Your task to perform on an android device: change the clock style Image 0: 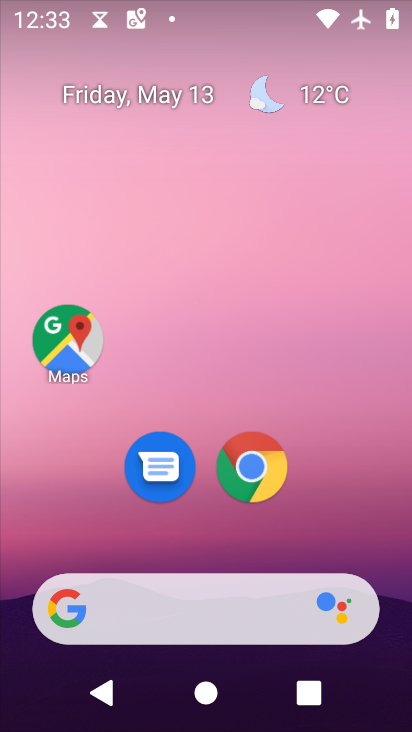
Step 0: drag from (329, 517) to (224, 31)
Your task to perform on an android device: change the clock style Image 1: 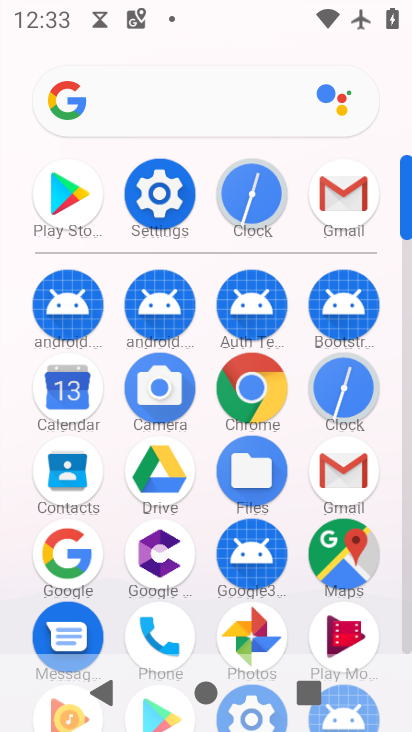
Step 1: click (349, 375)
Your task to perform on an android device: change the clock style Image 2: 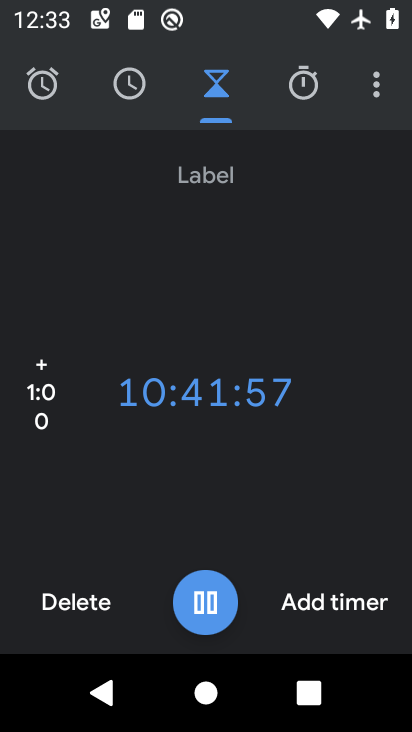
Step 2: click (373, 93)
Your task to perform on an android device: change the clock style Image 3: 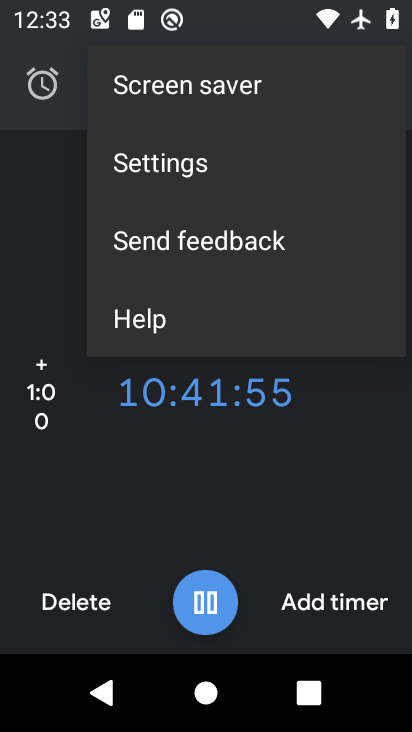
Step 3: click (124, 169)
Your task to perform on an android device: change the clock style Image 4: 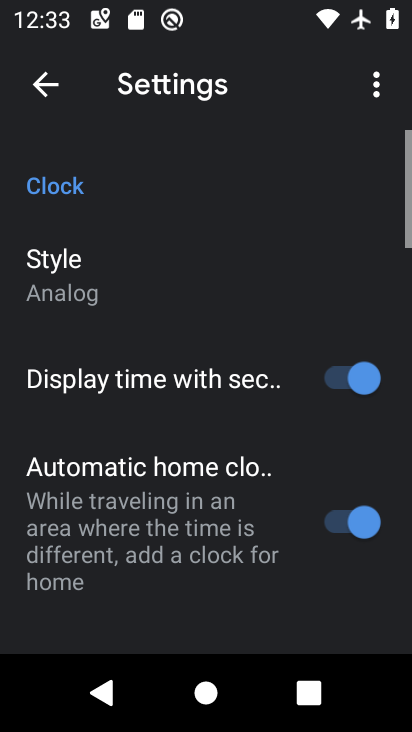
Step 4: click (107, 262)
Your task to perform on an android device: change the clock style Image 5: 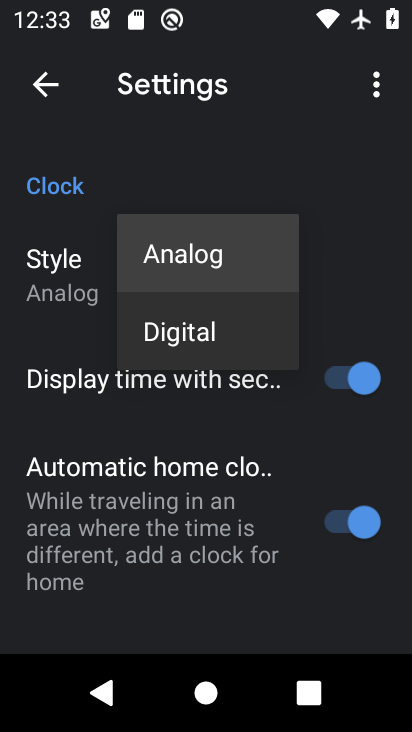
Step 5: click (166, 350)
Your task to perform on an android device: change the clock style Image 6: 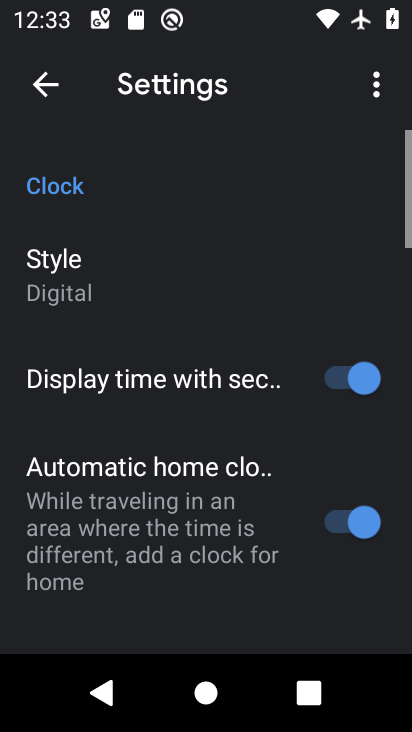
Step 6: task complete